Your task to perform on an android device: Go to network settings Image 0: 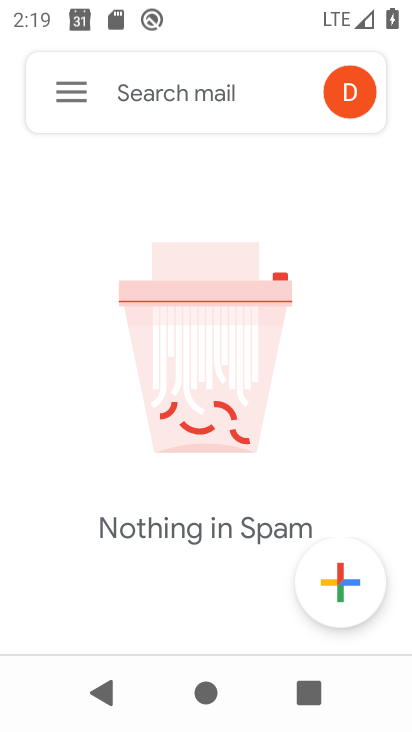
Step 0: press back button
Your task to perform on an android device: Go to network settings Image 1: 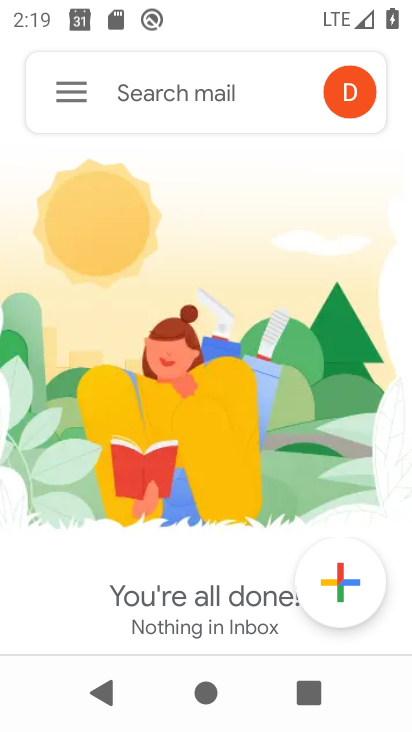
Step 1: press back button
Your task to perform on an android device: Go to network settings Image 2: 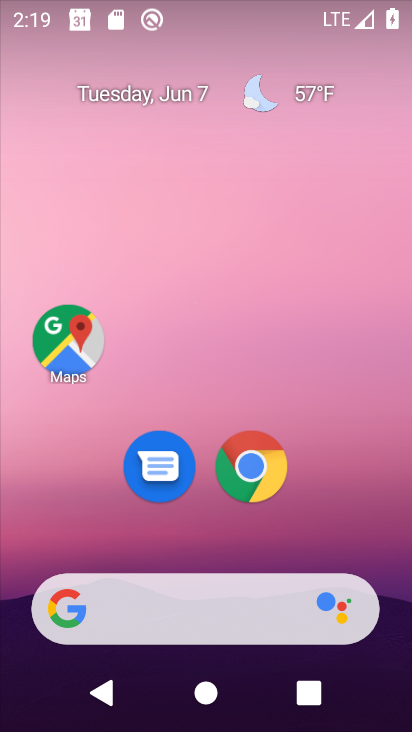
Step 2: drag from (196, 539) to (193, 8)
Your task to perform on an android device: Go to network settings Image 3: 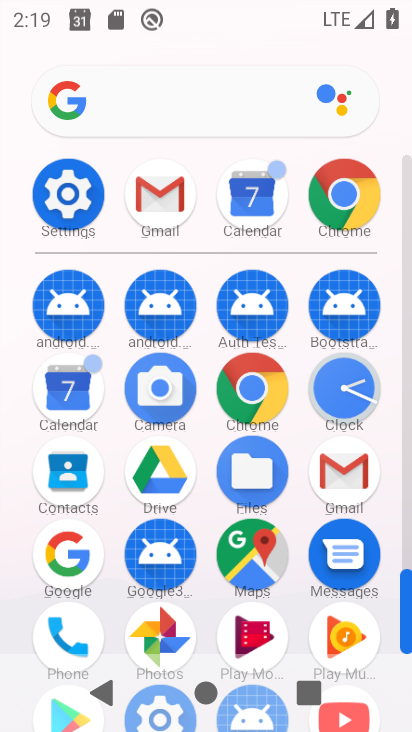
Step 3: click (69, 190)
Your task to perform on an android device: Go to network settings Image 4: 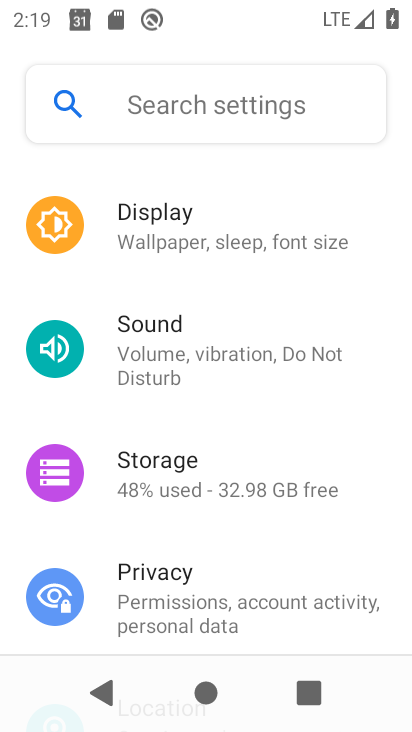
Step 4: drag from (203, 584) to (243, 130)
Your task to perform on an android device: Go to network settings Image 5: 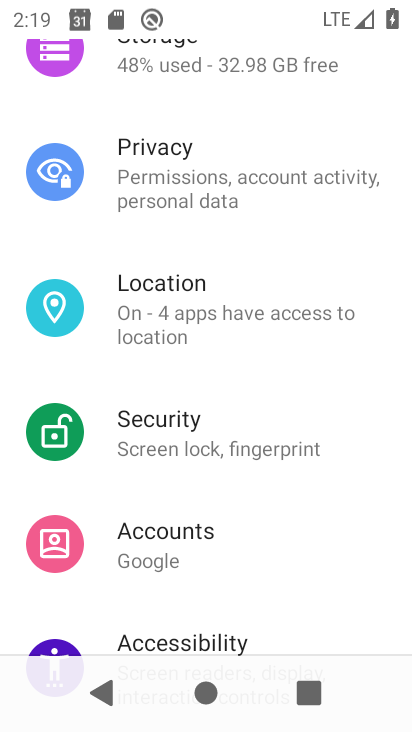
Step 5: drag from (221, 78) to (268, 611)
Your task to perform on an android device: Go to network settings Image 6: 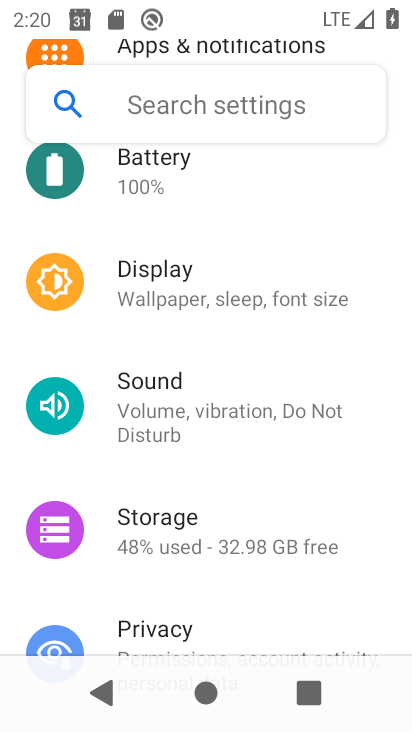
Step 6: drag from (249, 201) to (254, 676)
Your task to perform on an android device: Go to network settings Image 7: 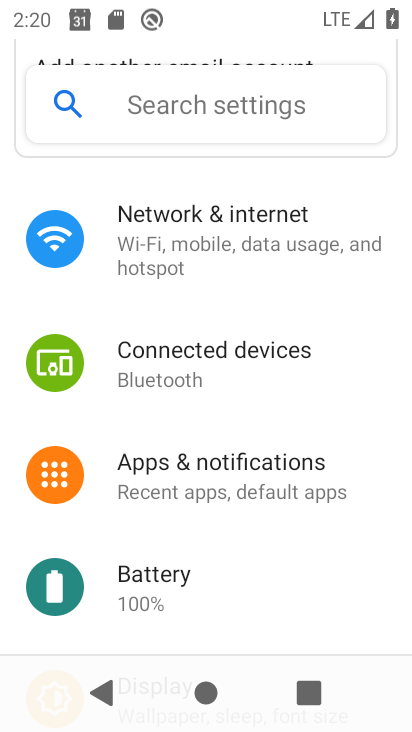
Step 7: click (161, 226)
Your task to perform on an android device: Go to network settings Image 8: 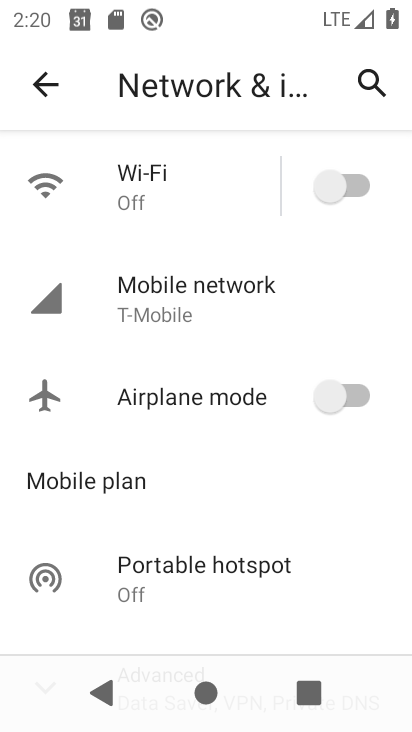
Step 8: task complete